Your task to perform on an android device: delete the emails in spam in the gmail app Image 0: 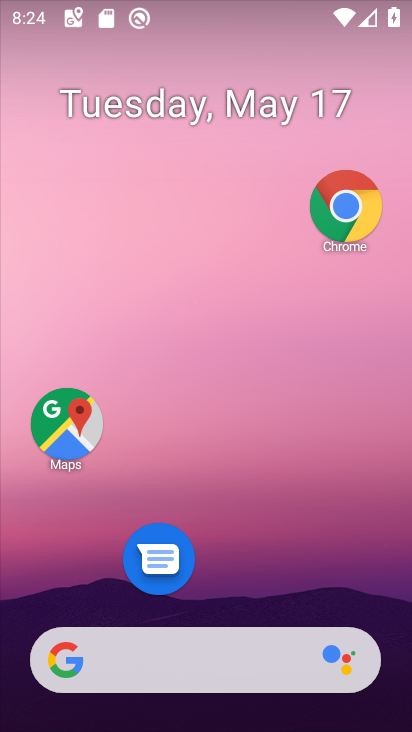
Step 0: drag from (260, 687) to (315, 227)
Your task to perform on an android device: delete the emails in spam in the gmail app Image 1: 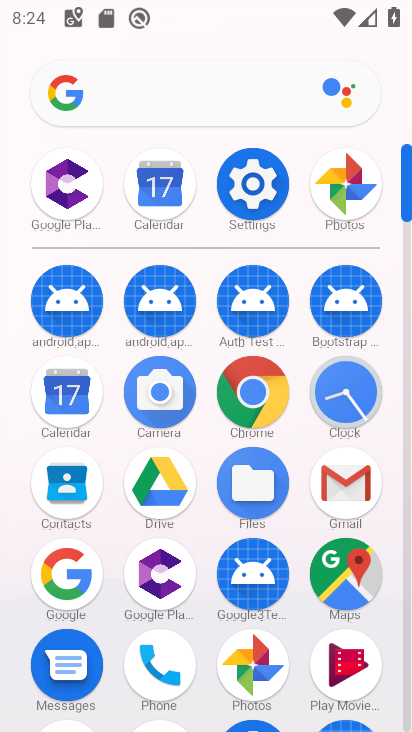
Step 1: click (348, 501)
Your task to perform on an android device: delete the emails in spam in the gmail app Image 2: 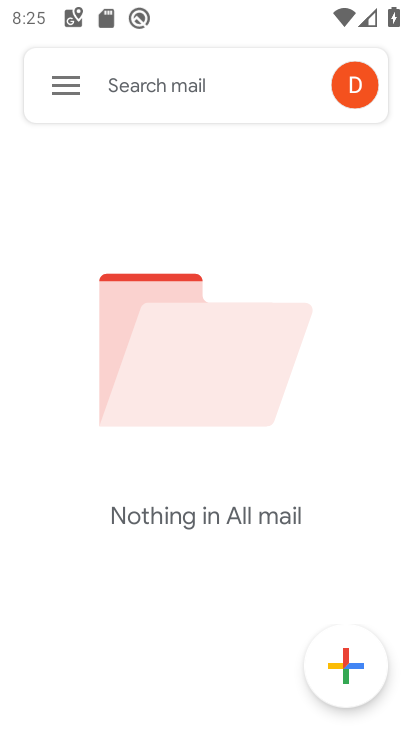
Step 2: click (70, 101)
Your task to perform on an android device: delete the emails in spam in the gmail app Image 3: 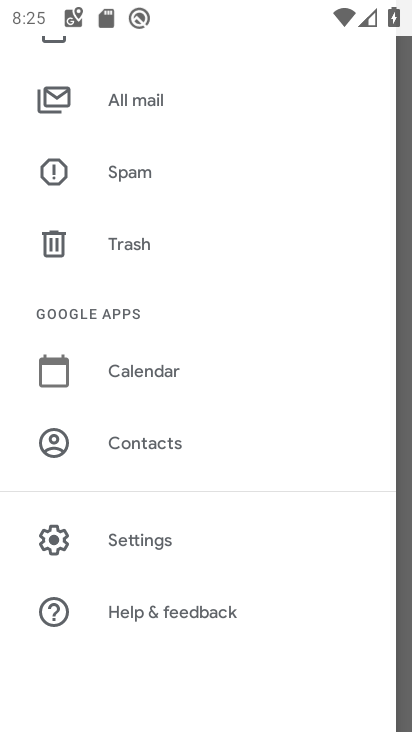
Step 3: click (121, 189)
Your task to perform on an android device: delete the emails in spam in the gmail app Image 4: 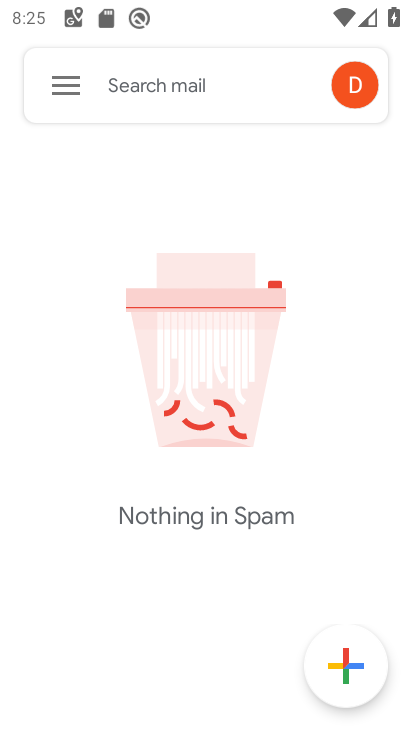
Step 4: task complete